Your task to perform on an android device: change the clock display to show seconds Image 0: 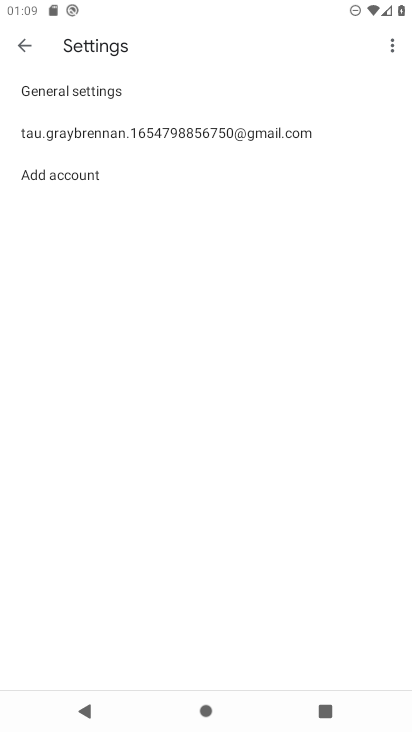
Step 0: press home button
Your task to perform on an android device: change the clock display to show seconds Image 1: 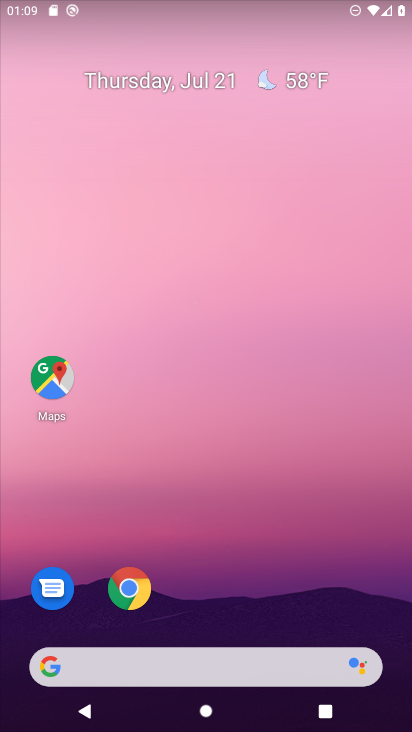
Step 1: drag from (238, 553) to (372, 21)
Your task to perform on an android device: change the clock display to show seconds Image 2: 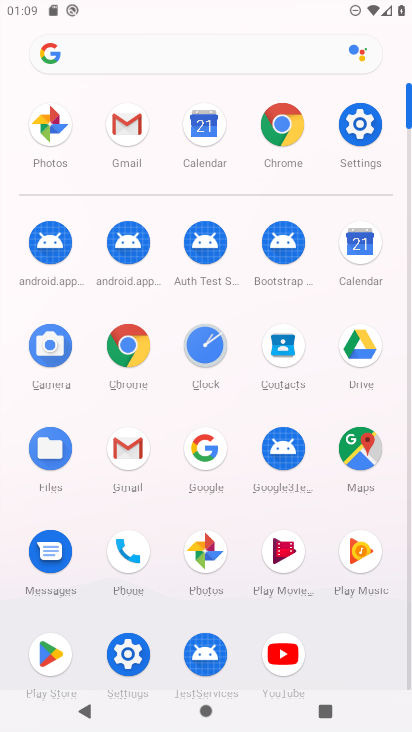
Step 2: click (220, 357)
Your task to perform on an android device: change the clock display to show seconds Image 3: 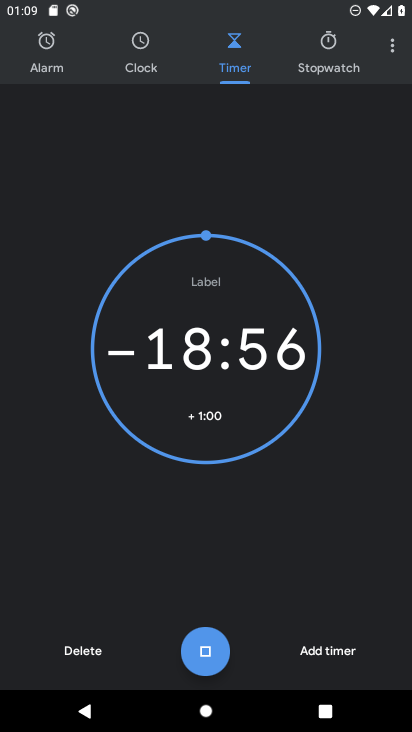
Step 3: click (106, 611)
Your task to perform on an android device: change the clock display to show seconds Image 4: 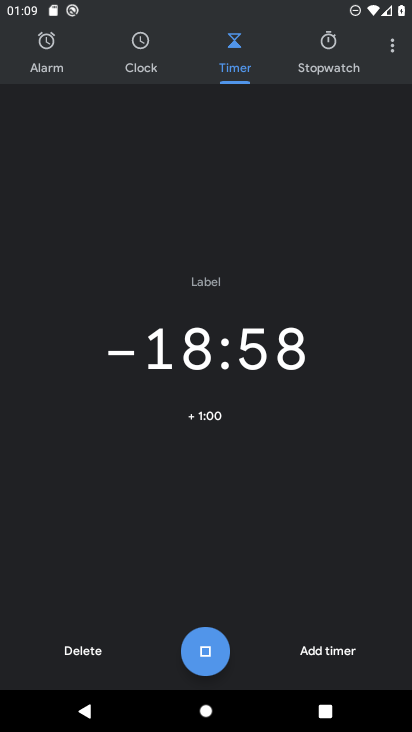
Step 4: click (394, 39)
Your task to perform on an android device: change the clock display to show seconds Image 5: 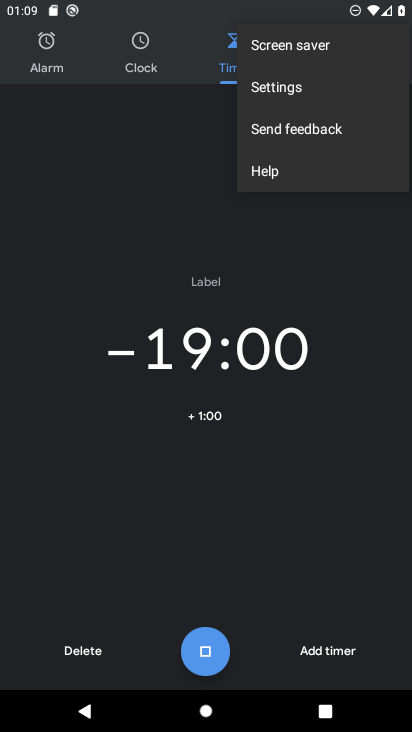
Step 5: click (287, 89)
Your task to perform on an android device: change the clock display to show seconds Image 6: 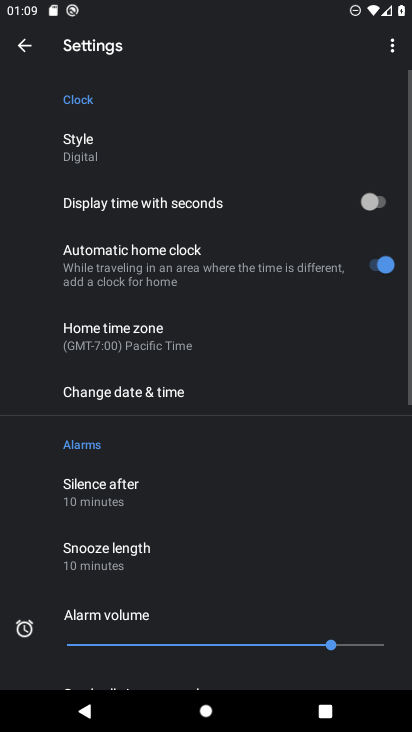
Step 6: click (107, 157)
Your task to perform on an android device: change the clock display to show seconds Image 7: 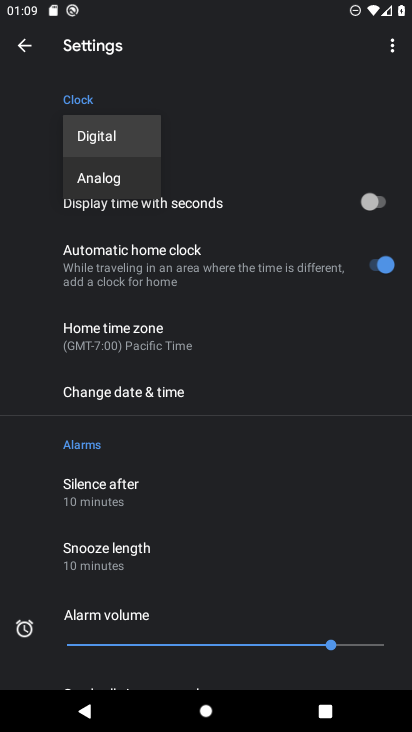
Step 7: click (127, 186)
Your task to perform on an android device: change the clock display to show seconds Image 8: 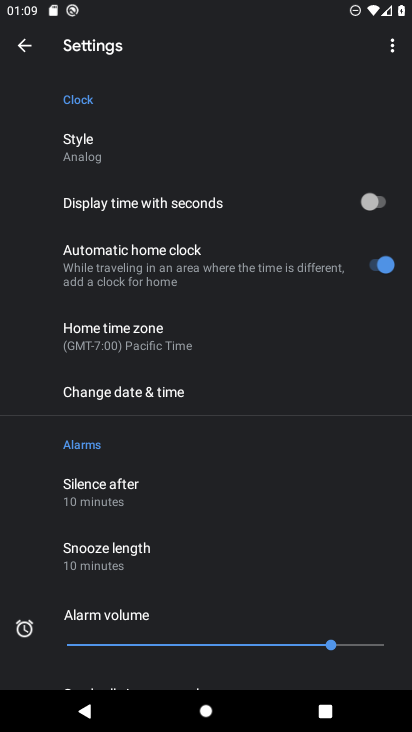
Step 8: task complete